Your task to perform on an android device: check data usage Image 0: 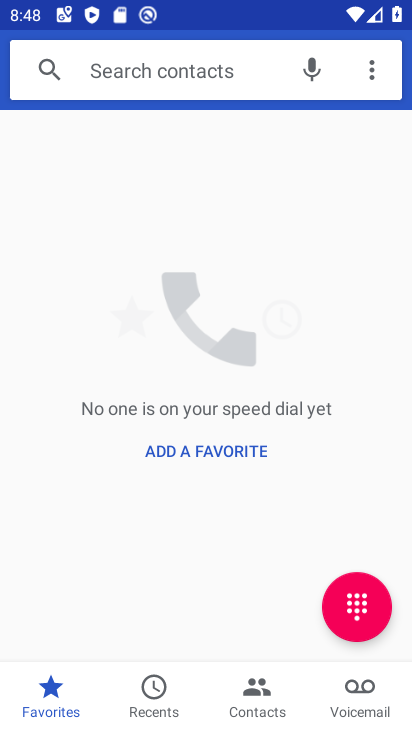
Step 0: press home button
Your task to perform on an android device: check data usage Image 1: 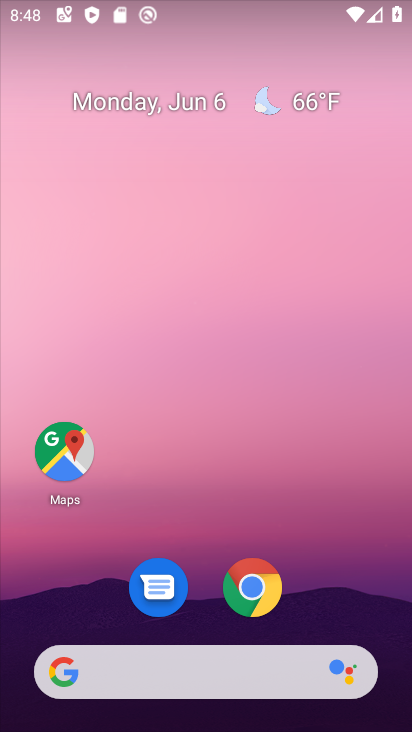
Step 1: drag from (183, 660) to (211, 103)
Your task to perform on an android device: check data usage Image 2: 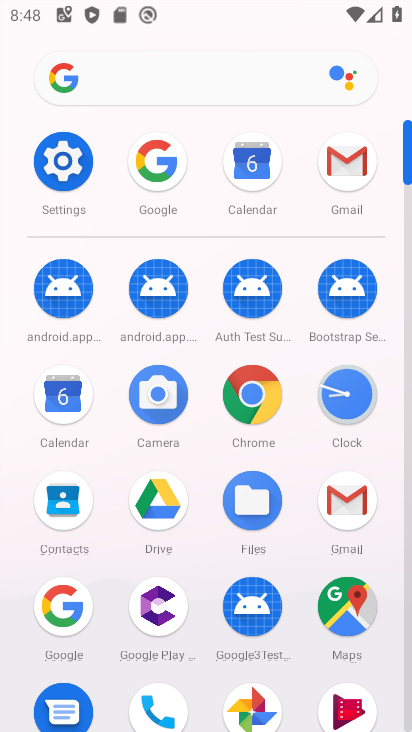
Step 2: click (56, 166)
Your task to perform on an android device: check data usage Image 3: 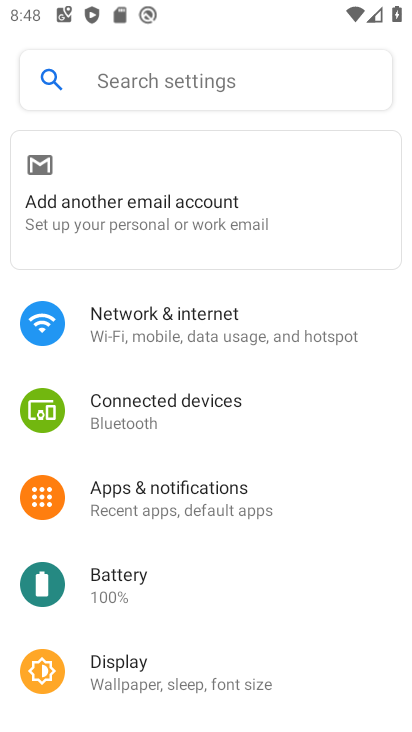
Step 3: click (169, 336)
Your task to perform on an android device: check data usage Image 4: 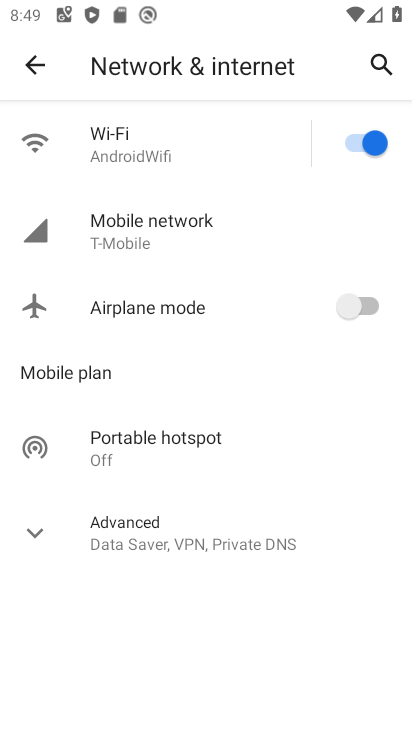
Step 4: click (144, 233)
Your task to perform on an android device: check data usage Image 5: 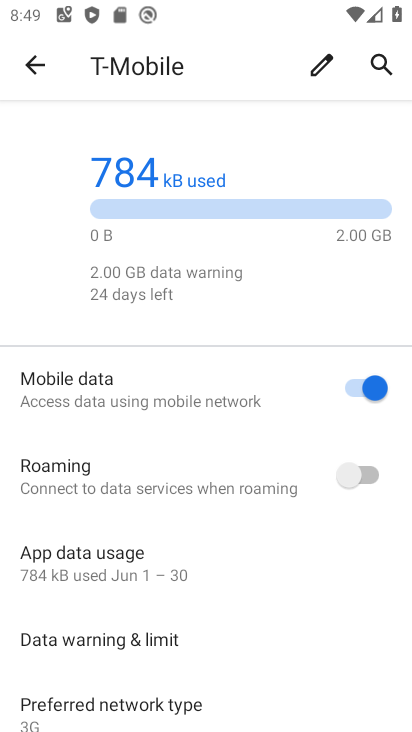
Step 5: task complete